Your task to perform on an android device: check the backup settings in the google photos Image 0: 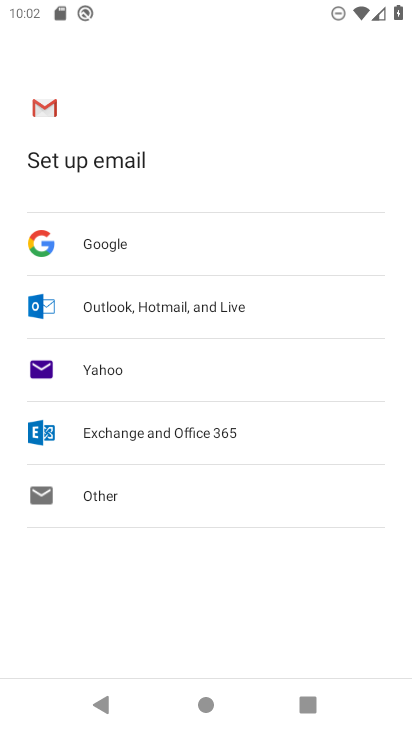
Step 0: press home button
Your task to perform on an android device: check the backup settings in the google photos Image 1: 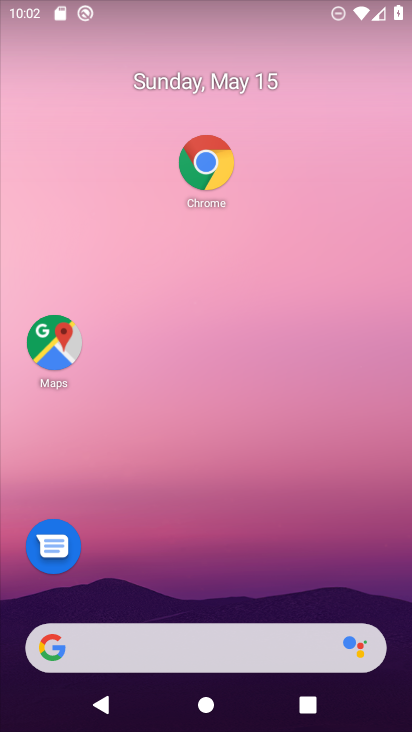
Step 1: drag from (220, 559) to (256, 193)
Your task to perform on an android device: check the backup settings in the google photos Image 2: 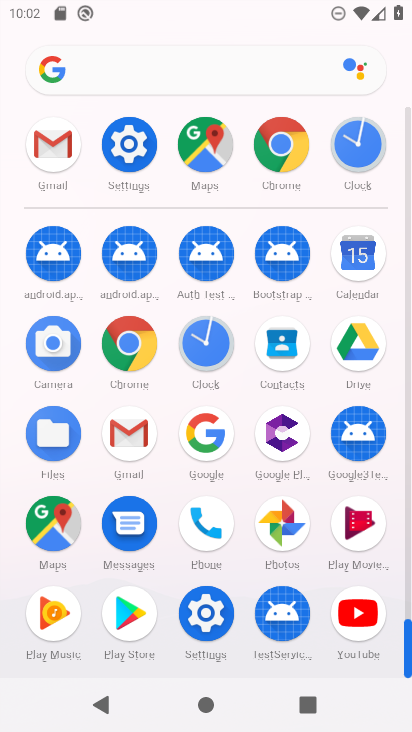
Step 2: click (292, 530)
Your task to perform on an android device: check the backup settings in the google photos Image 3: 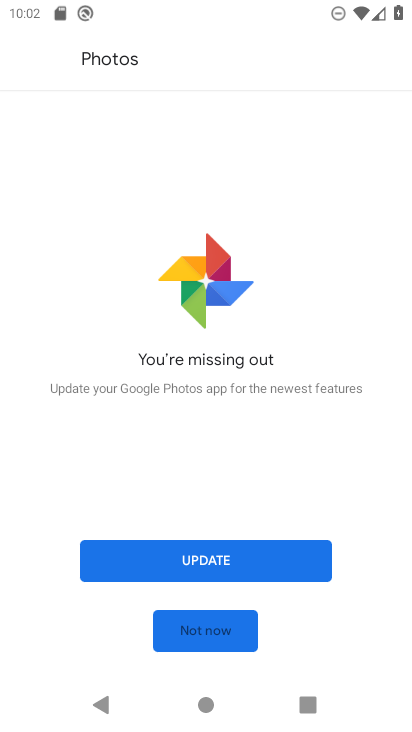
Step 3: click (194, 644)
Your task to perform on an android device: check the backup settings in the google photos Image 4: 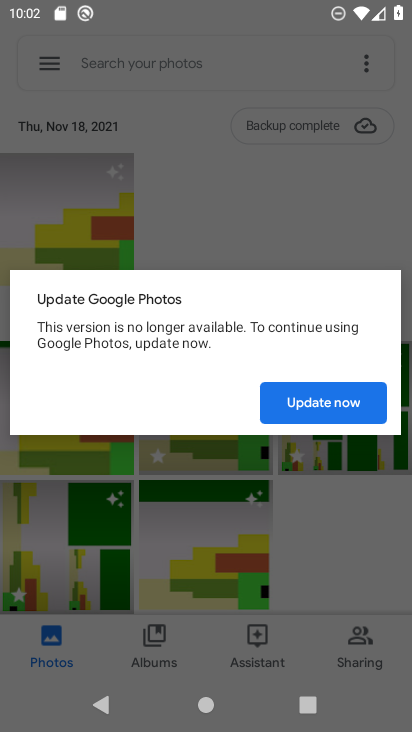
Step 4: click (320, 392)
Your task to perform on an android device: check the backup settings in the google photos Image 5: 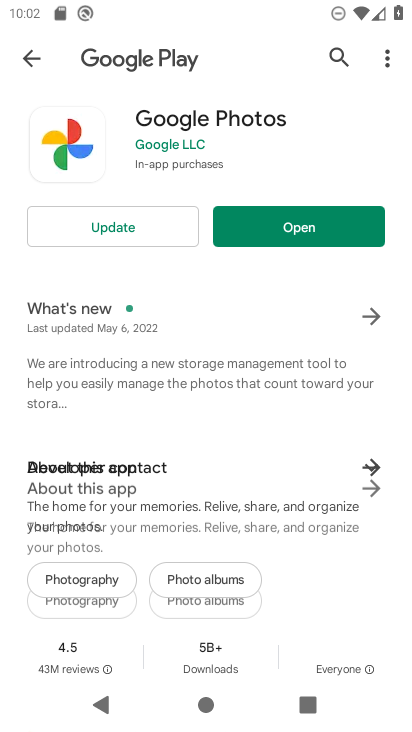
Step 5: press back button
Your task to perform on an android device: check the backup settings in the google photos Image 6: 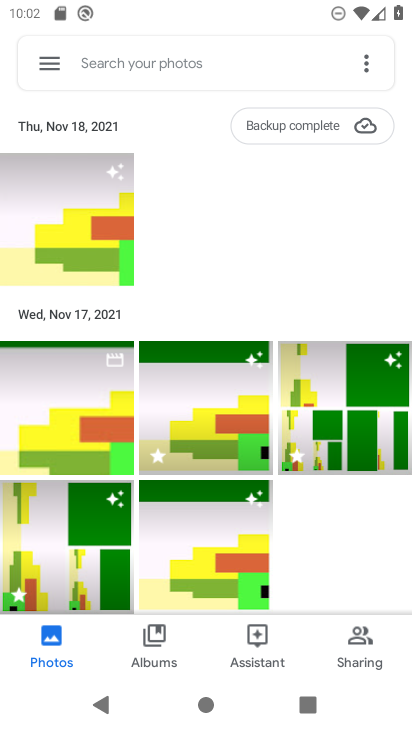
Step 6: click (41, 61)
Your task to perform on an android device: check the backup settings in the google photos Image 7: 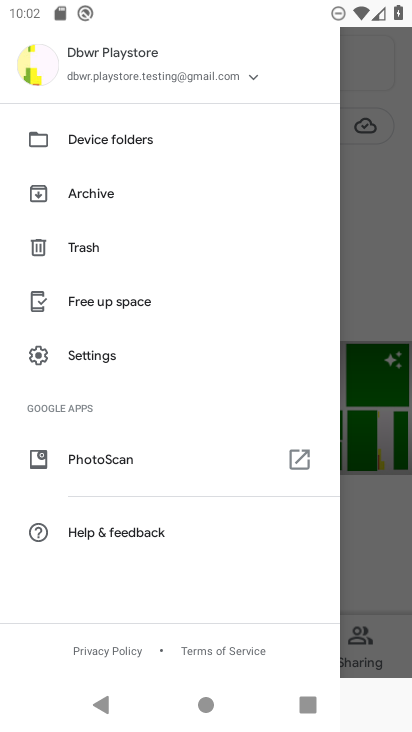
Step 7: click (110, 355)
Your task to perform on an android device: check the backup settings in the google photos Image 8: 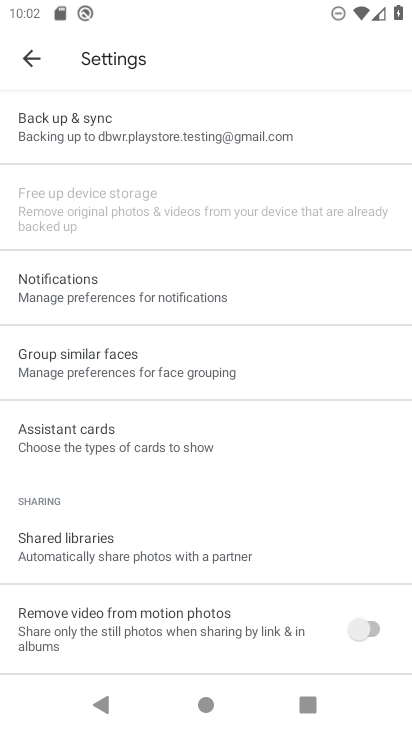
Step 8: click (146, 126)
Your task to perform on an android device: check the backup settings in the google photos Image 9: 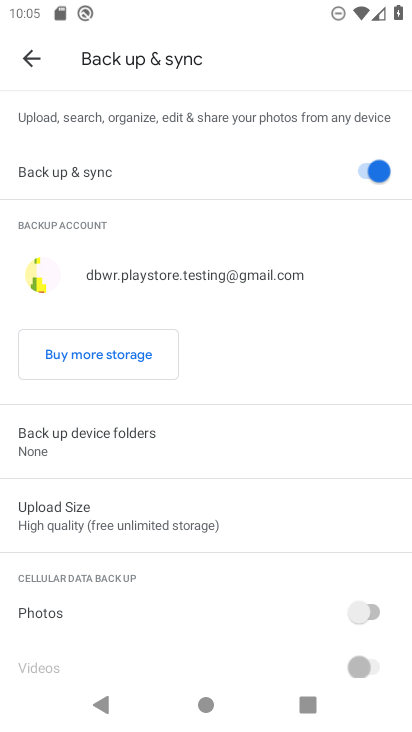
Step 9: task complete